Your task to perform on an android device: Find coffee shops on Maps Image 0: 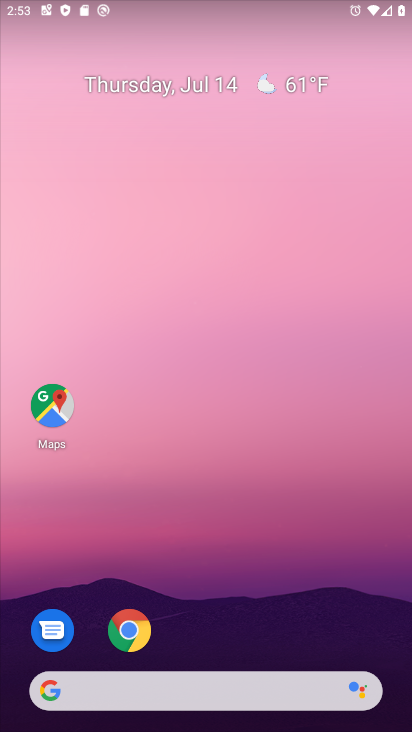
Step 0: click (47, 404)
Your task to perform on an android device: Find coffee shops on Maps Image 1: 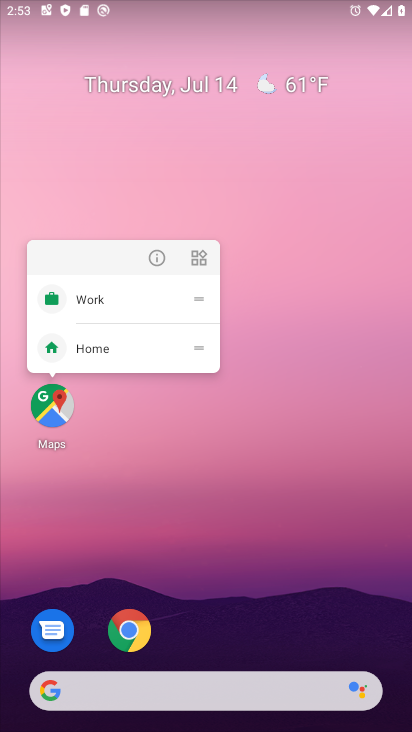
Step 1: click (51, 405)
Your task to perform on an android device: Find coffee shops on Maps Image 2: 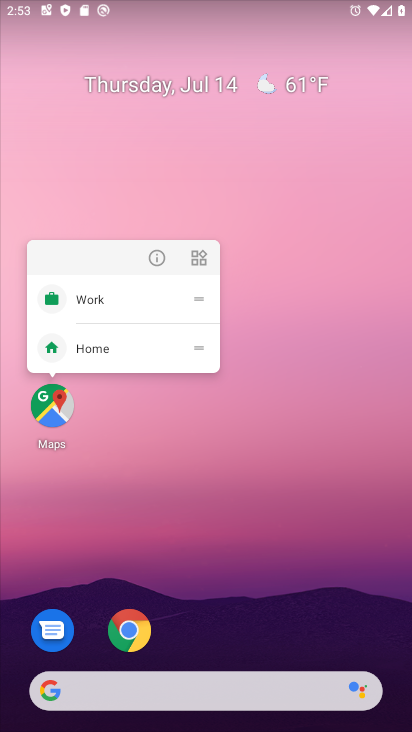
Step 2: click (51, 407)
Your task to perform on an android device: Find coffee shops on Maps Image 3: 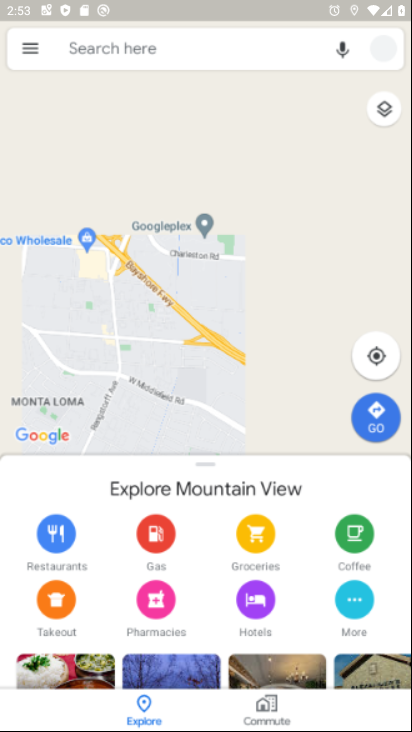
Step 3: click (161, 48)
Your task to perform on an android device: Find coffee shops on Maps Image 4: 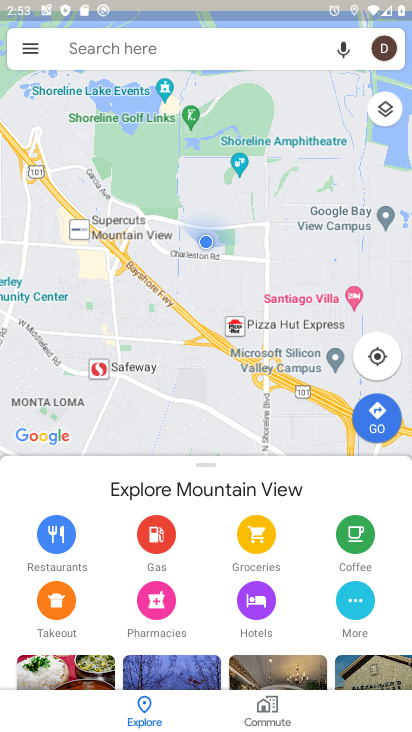
Step 4: click (146, 50)
Your task to perform on an android device: Find coffee shops on Maps Image 5: 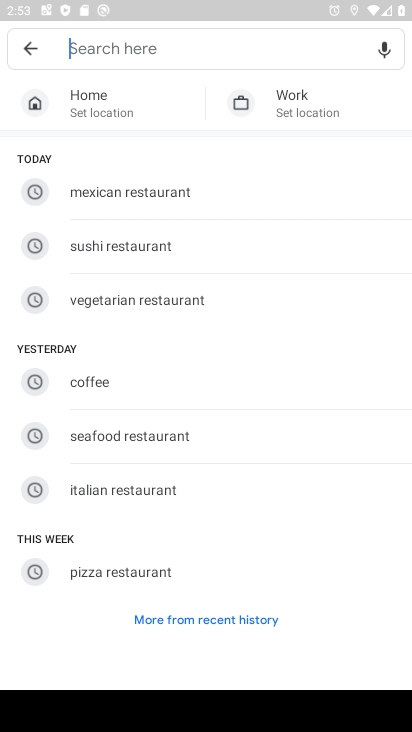
Step 5: click (117, 381)
Your task to perform on an android device: Find coffee shops on Maps Image 6: 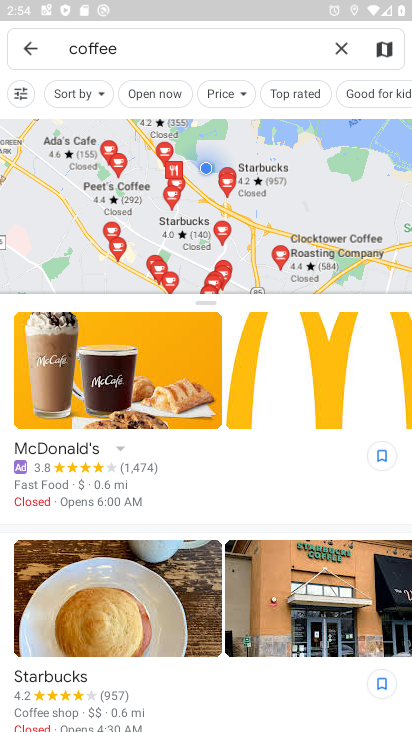
Step 6: task complete